Your task to perform on an android device: Search for pizza restaurants on Maps Image 0: 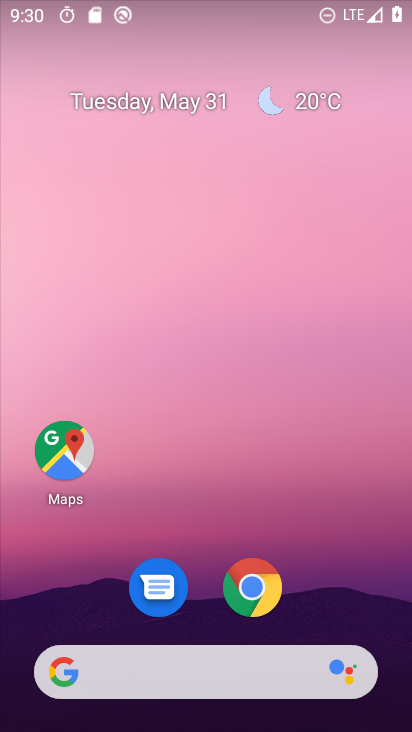
Step 0: click (77, 456)
Your task to perform on an android device: Search for pizza restaurants on Maps Image 1: 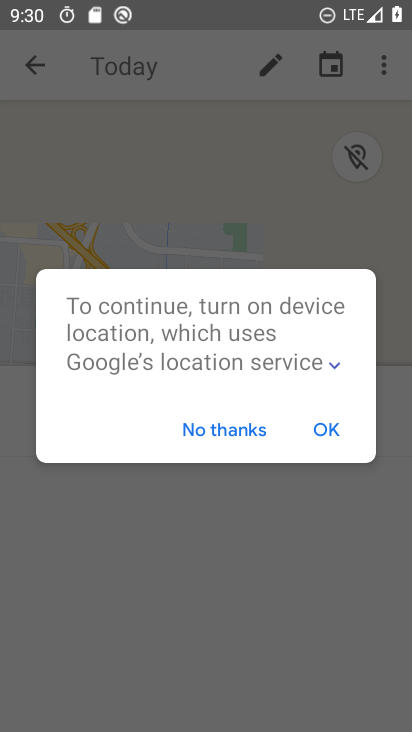
Step 1: click (320, 438)
Your task to perform on an android device: Search for pizza restaurants on Maps Image 2: 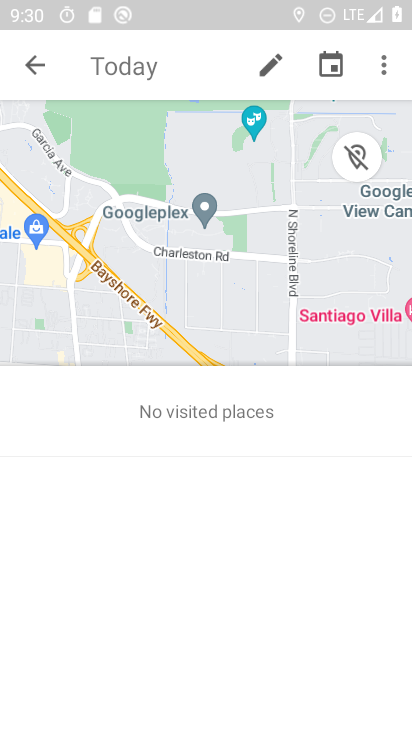
Step 2: click (29, 71)
Your task to perform on an android device: Search for pizza restaurants on Maps Image 3: 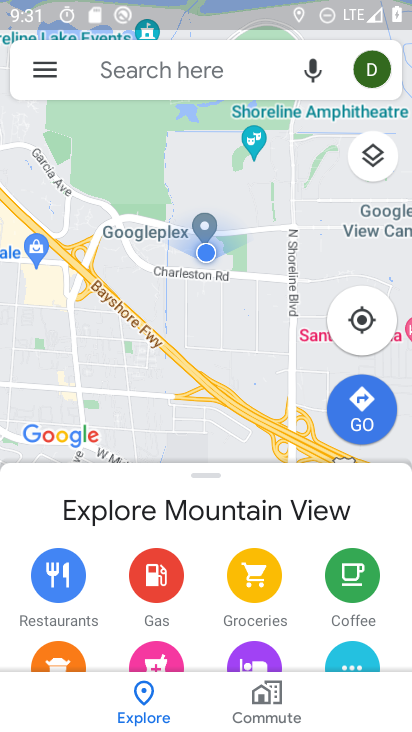
Step 3: click (164, 79)
Your task to perform on an android device: Search for pizza restaurants on Maps Image 4: 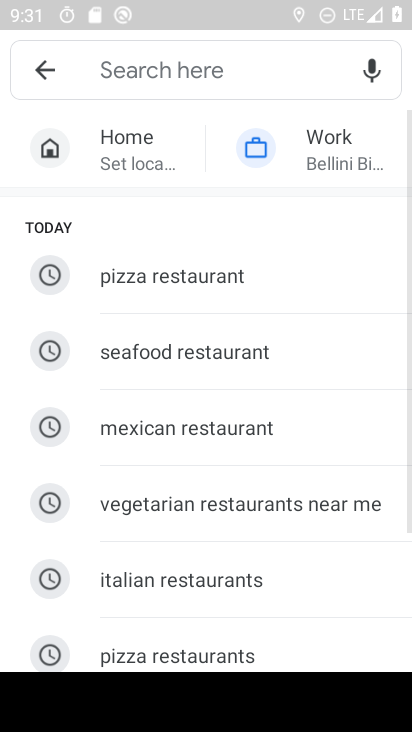
Step 4: click (136, 276)
Your task to perform on an android device: Search for pizza restaurants on Maps Image 5: 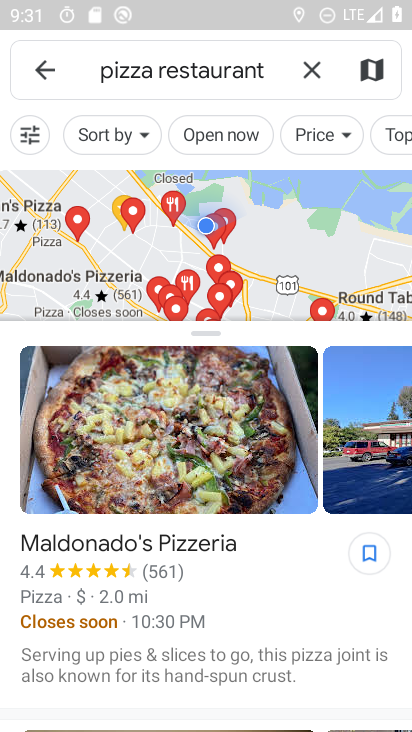
Step 5: task complete